Your task to perform on an android device: Go to ESPN.com Image 0: 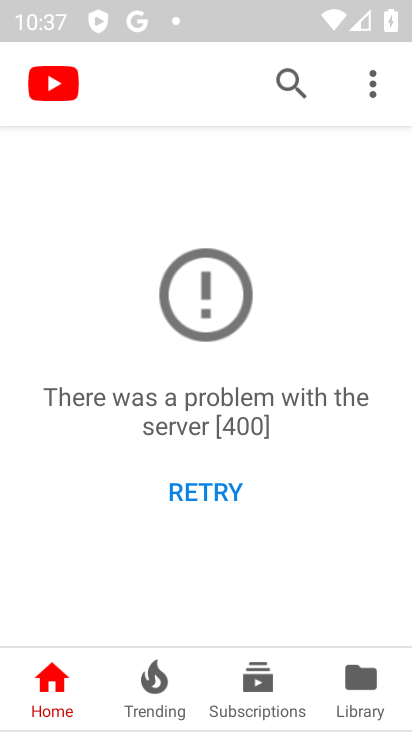
Step 0: press home button
Your task to perform on an android device: Go to ESPN.com Image 1: 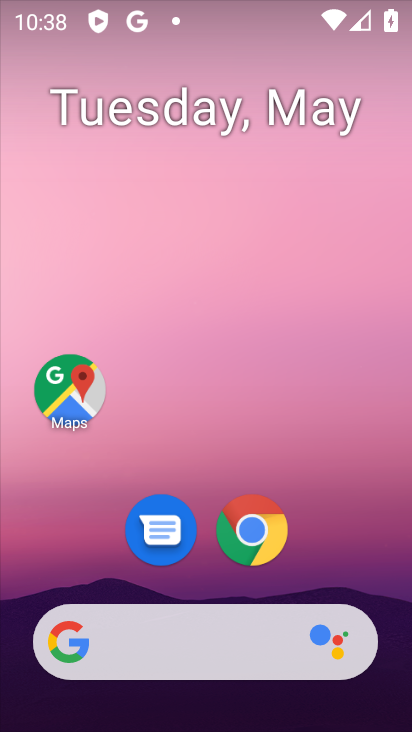
Step 1: click (255, 532)
Your task to perform on an android device: Go to ESPN.com Image 2: 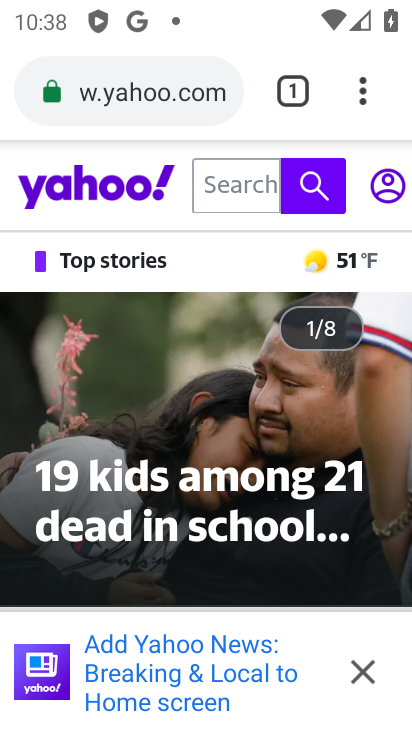
Step 2: click (163, 79)
Your task to perform on an android device: Go to ESPN.com Image 3: 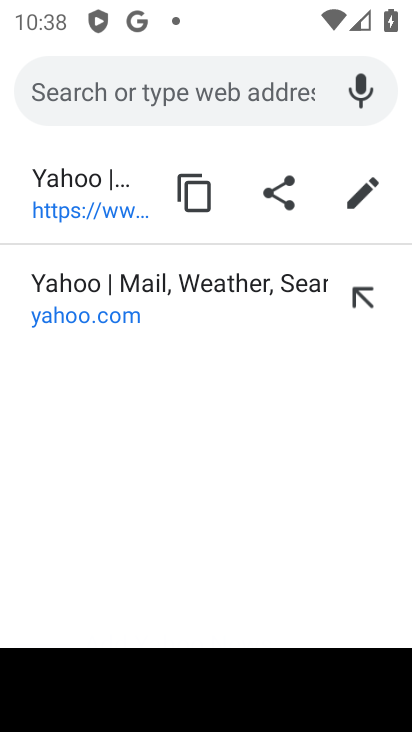
Step 3: type "espn.com"
Your task to perform on an android device: Go to ESPN.com Image 4: 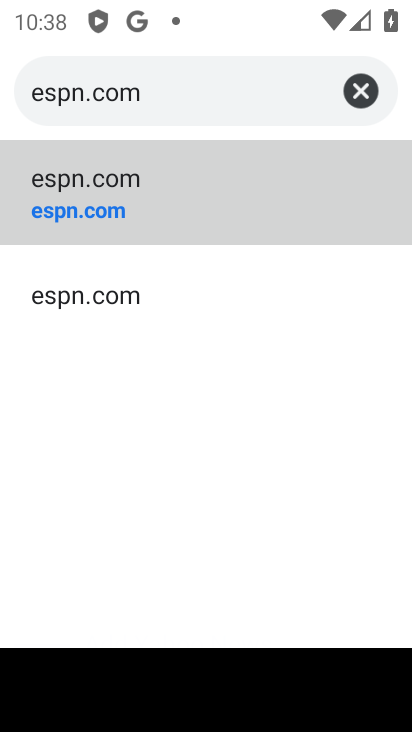
Step 4: click (93, 217)
Your task to perform on an android device: Go to ESPN.com Image 5: 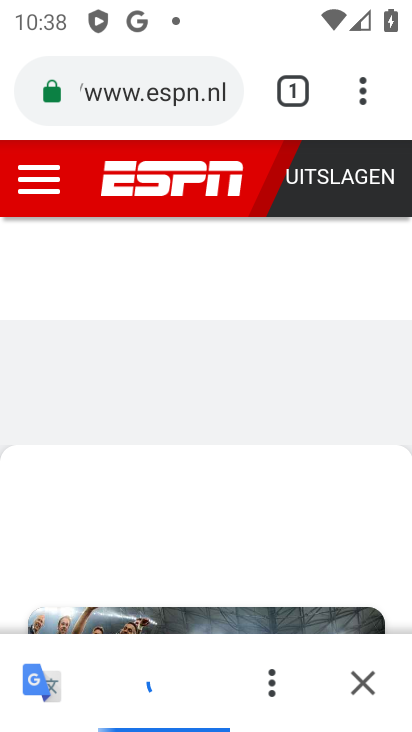
Step 5: task complete